Your task to perform on an android device: toggle sleep mode Image 0: 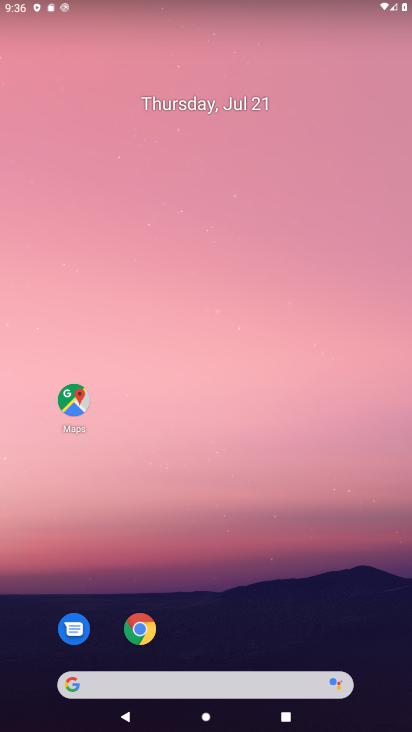
Step 0: drag from (250, 632) to (226, 221)
Your task to perform on an android device: toggle sleep mode Image 1: 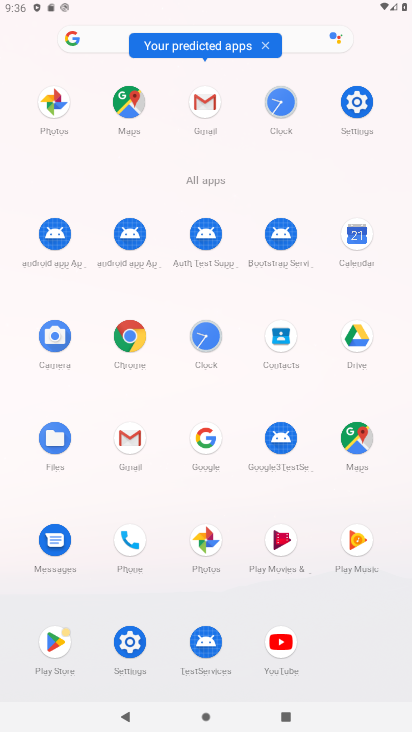
Step 1: click (136, 336)
Your task to perform on an android device: toggle sleep mode Image 2: 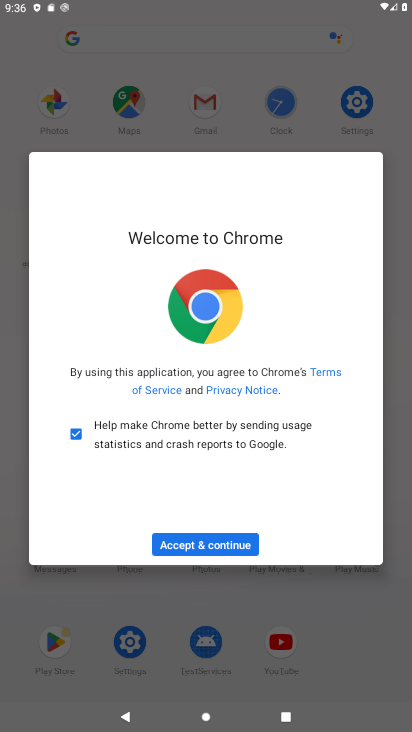
Step 2: click (223, 534)
Your task to perform on an android device: toggle sleep mode Image 3: 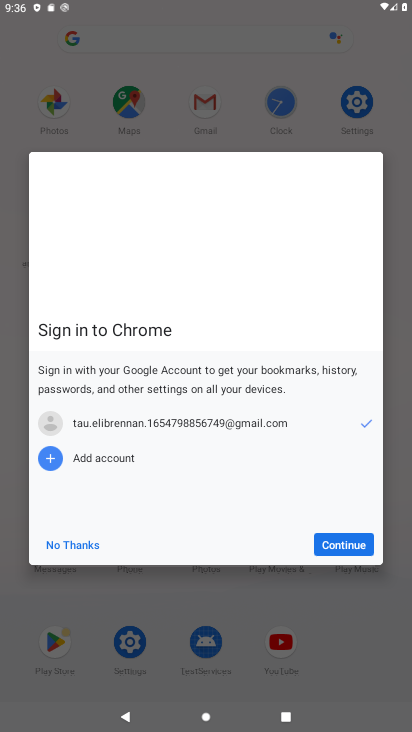
Step 3: click (350, 548)
Your task to perform on an android device: toggle sleep mode Image 4: 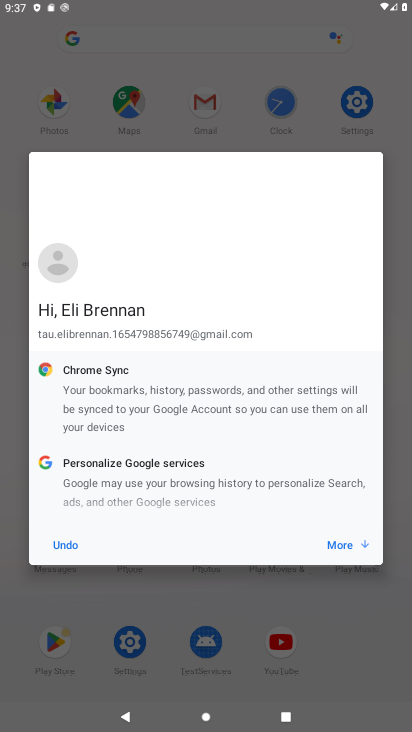
Step 4: click (350, 548)
Your task to perform on an android device: toggle sleep mode Image 5: 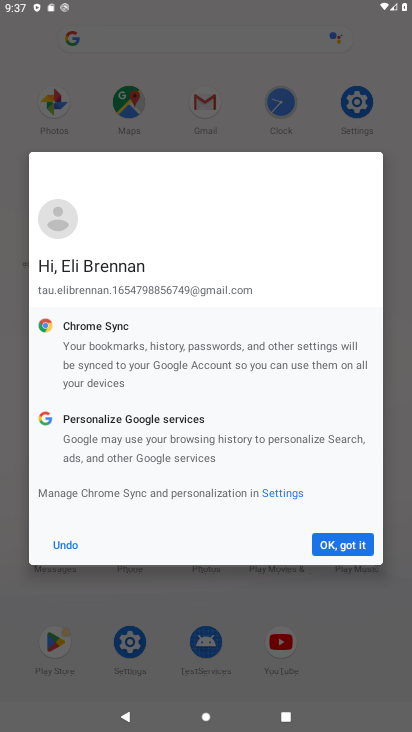
Step 5: click (357, 545)
Your task to perform on an android device: toggle sleep mode Image 6: 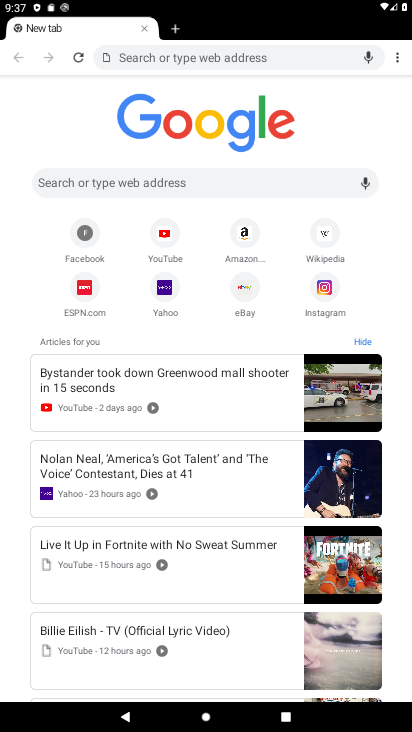
Step 6: press home button
Your task to perform on an android device: toggle sleep mode Image 7: 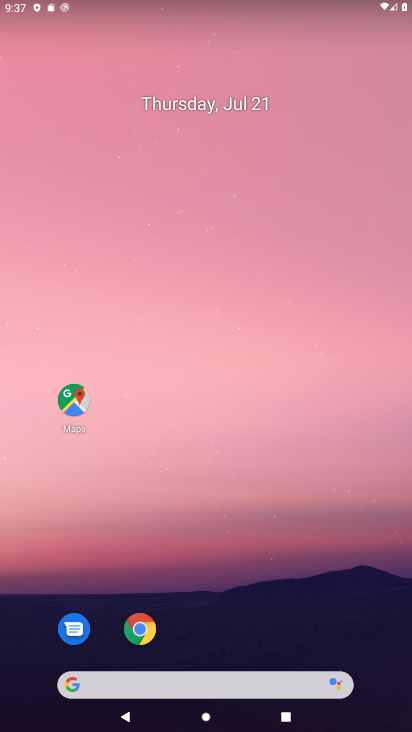
Step 7: drag from (273, 637) to (203, 179)
Your task to perform on an android device: toggle sleep mode Image 8: 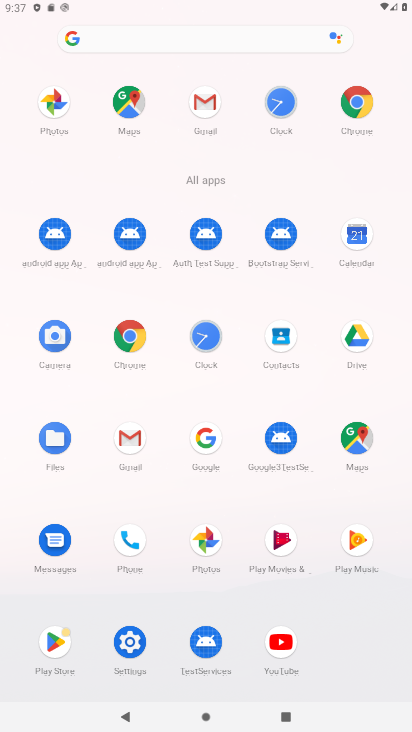
Step 8: click (132, 654)
Your task to perform on an android device: toggle sleep mode Image 9: 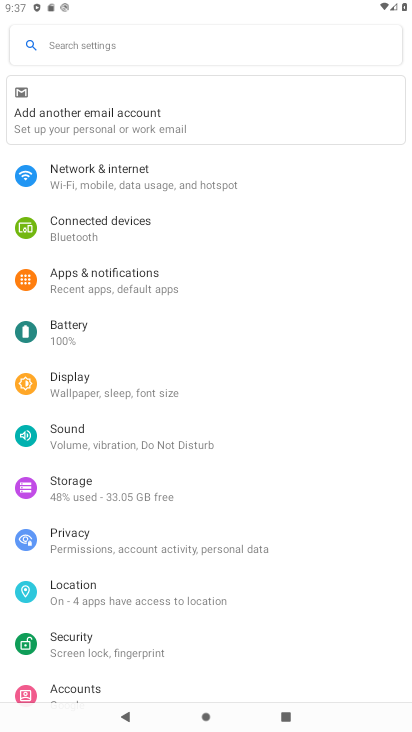
Step 9: click (160, 401)
Your task to perform on an android device: toggle sleep mode Image 10: 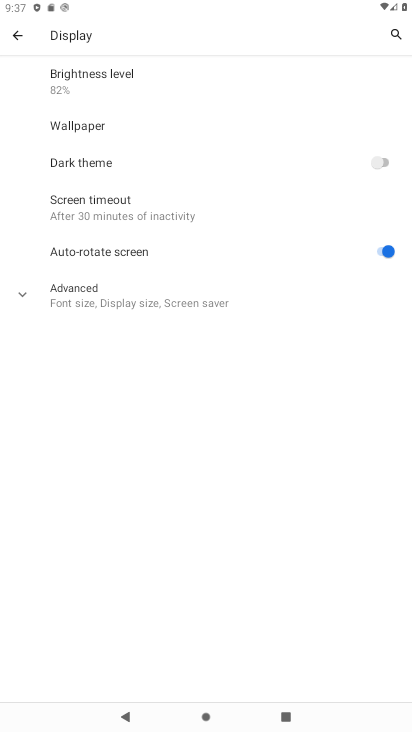
Step 10: click (161, 299)
Your task to perform on an android device: toggle sleep mode Image 11: 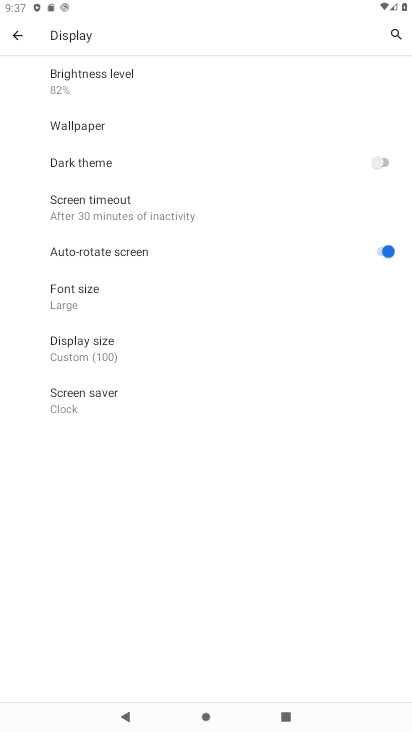
Step 11: task complete